Your task to perform on an android device: Go to ESPN.com Image 0: 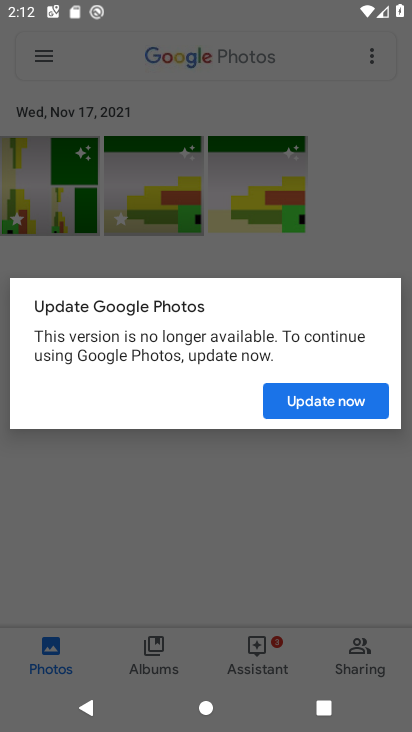
Step 0: press home button
Your task to perform on an android device: Go to ESPN.com Image 1: 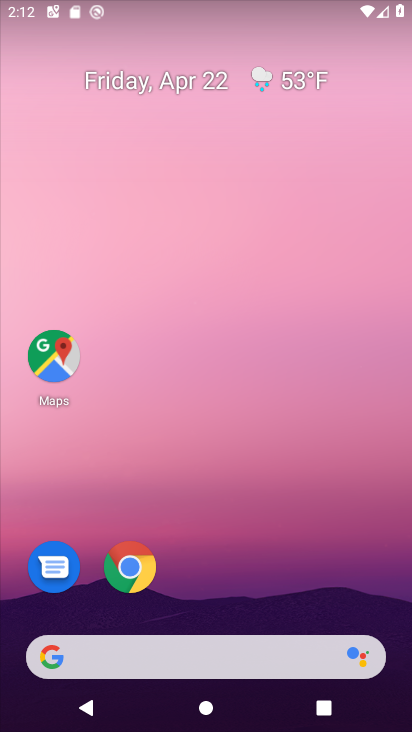
Step 1: click (222, 651)
Your task to perform on an android device: Go to ESPN.com Image 2: 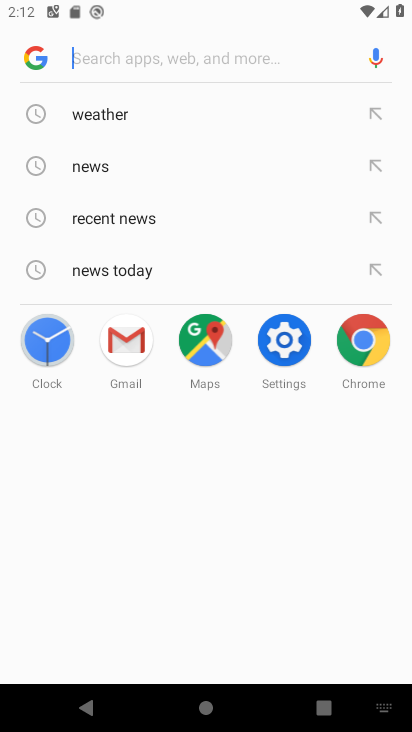
Step 2: type "espn.com"
Your task to perform on an android device: Go to ESPN.com Image 3: 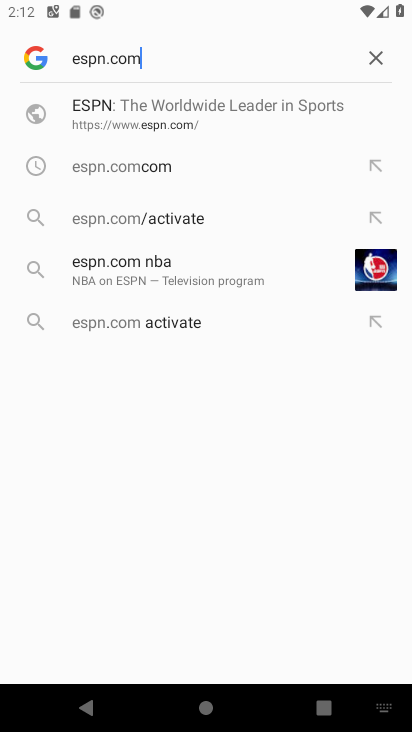
Step 3: click (232, 113)
Your task to perform on an android device: Go to ESPN.com Image 4: 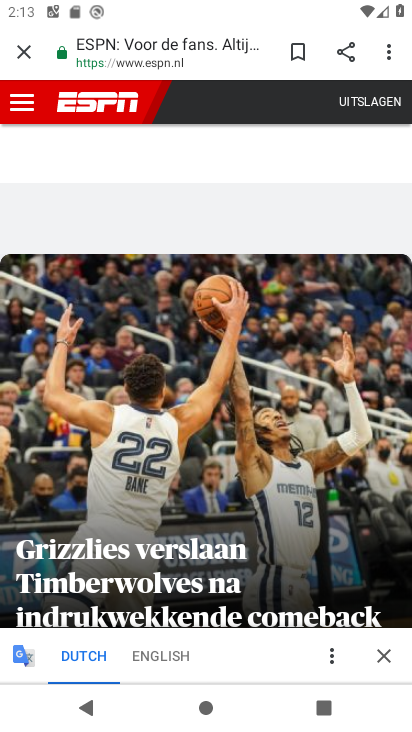
Step 4: task complete